Your task to perform on an android device: turn off wifi Image 0: 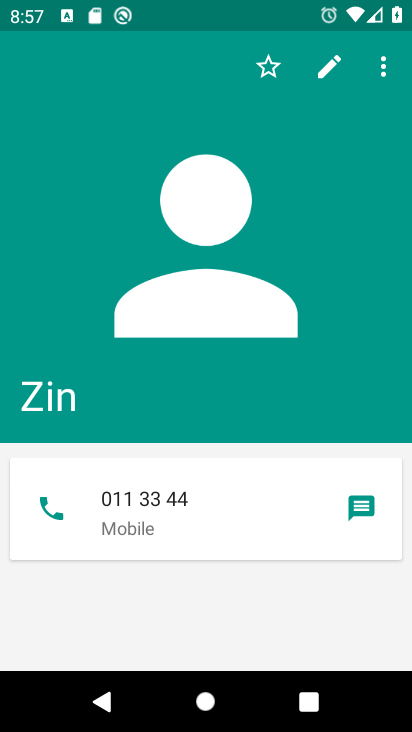
Step 0: press home button
Your task to perform on an android device: turn off wifi Image 1: 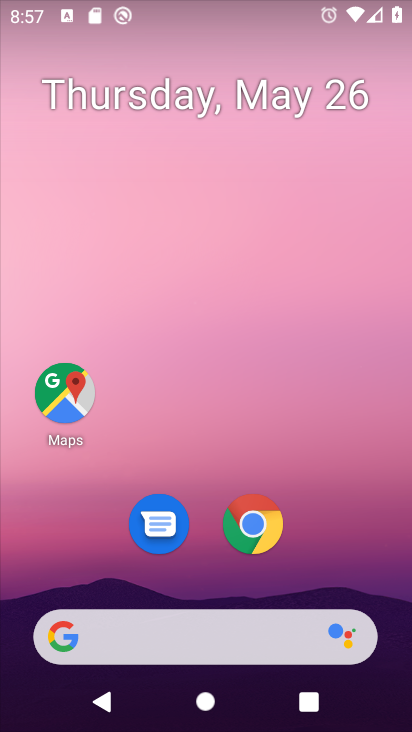
Step 1: drag from (328, 553) to (277, 52)
Your task to perform on an android device: turn off wifi Image 2: 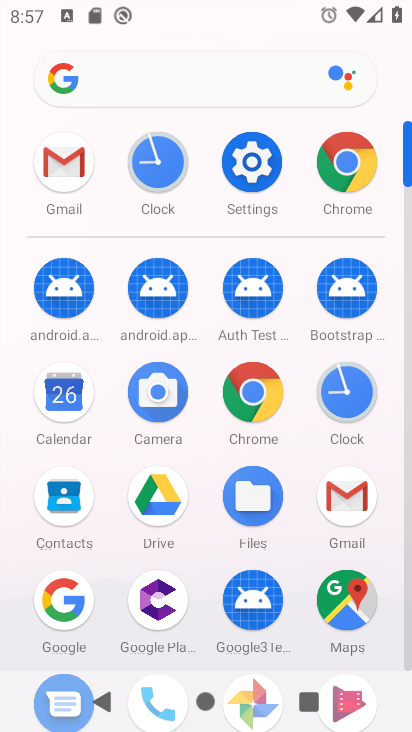
Step 2: click (254, 163)
Your task to perform on an android device: turn off wifi Image 3: 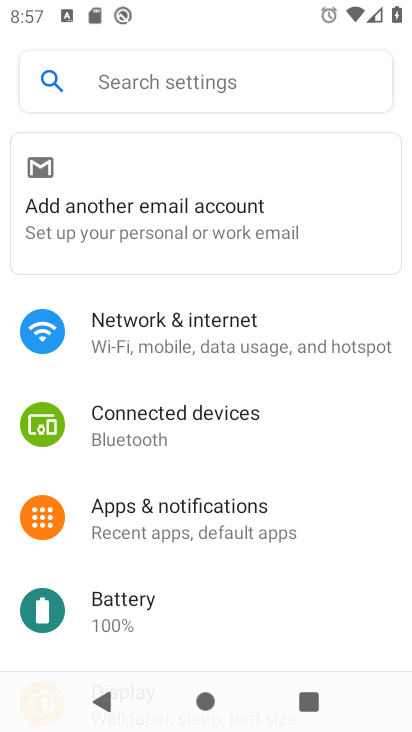
Step 3: click (253, 323)
Your task to perform on an android device: turn off wifi Image 4: 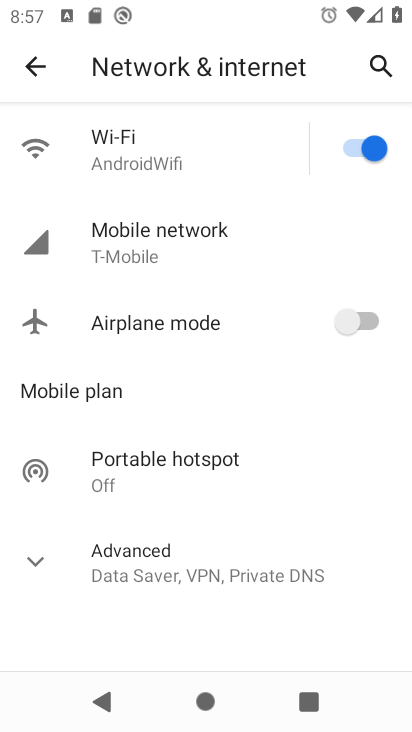
Step 4: click (360, 145)
Your task to perform on an android device: turn off wifi Image 5: 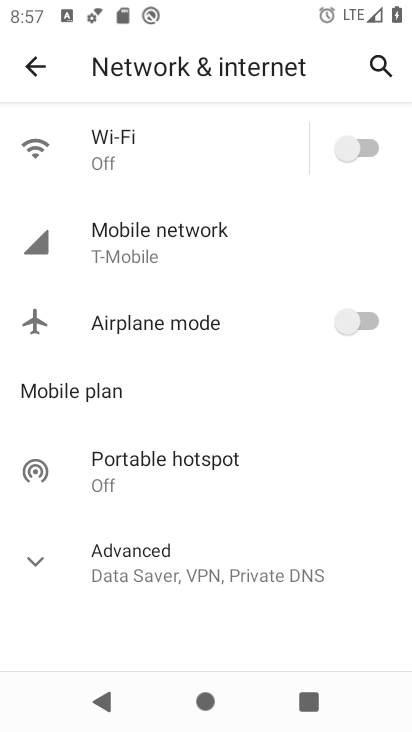
Step 5: task complete